Your task to perform on an android device: see sites visited before in the chrome app Image 0: 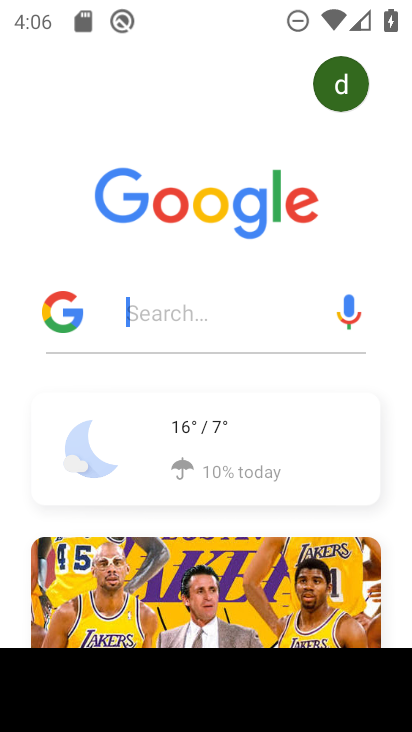
Step 0: press home button
Your task to perform on an android device: see sites visited before in the chrome app Image 1: 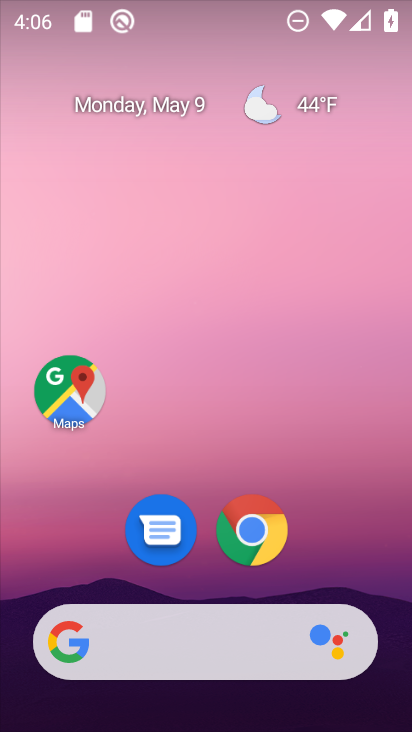
Step 1: click (250, 529)
Your task to perform on an android device: see sites visited before in the chrome app Image 2: 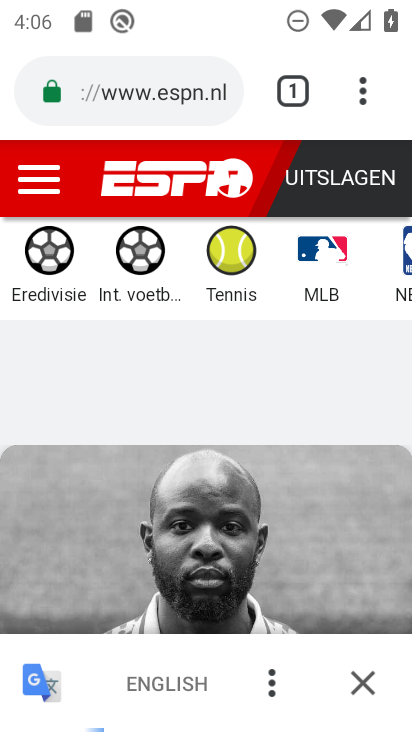
Step 2: click (363, 90)
Your task to perform on an android device: see sites visited before in the chrome app Image 3: 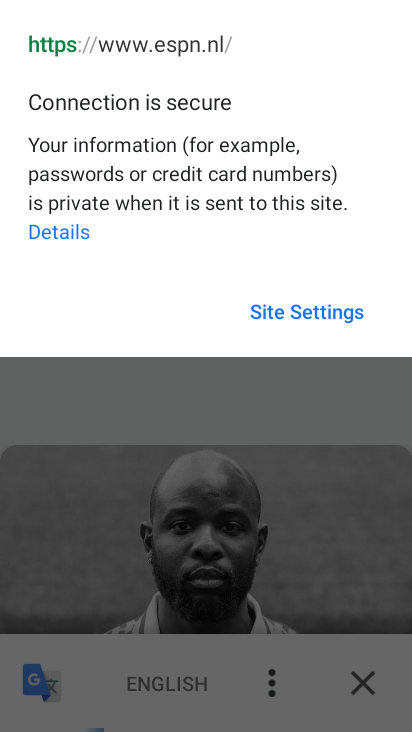
Step 3: click (247, 433)
Your task to perform on an android device: see sites visited before in the chrome app Image 4: 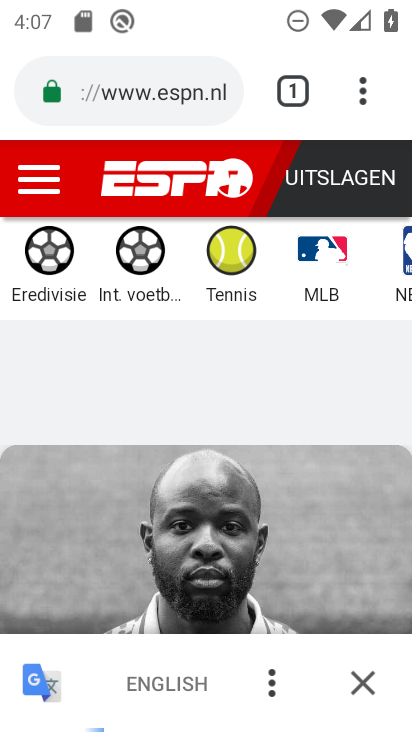
Step 4: click (355, 95)
Your task to perform on an android device: see sites visited before in the chrome app Image 5: 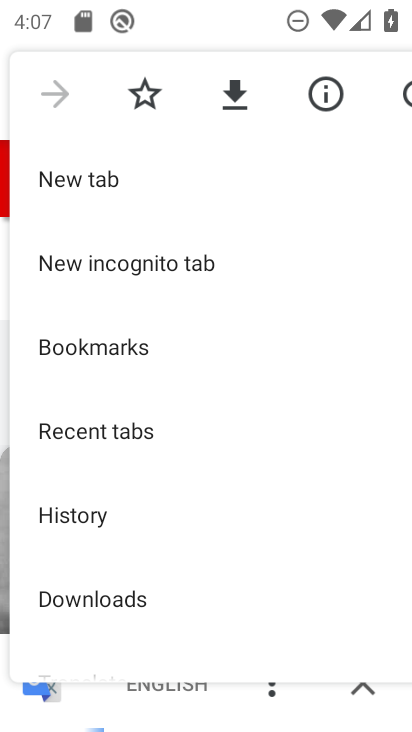
Step 5: click (115, 514)
Your task to perform on an android device: see sites visited before in the chrome app Image 6: 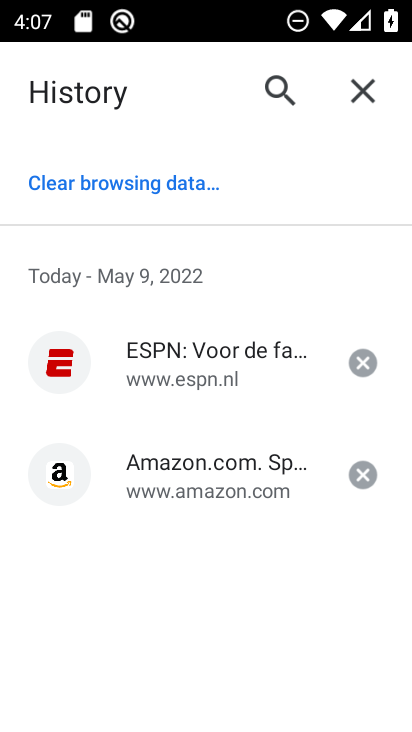
Step 6: task complete